Your task to perform on an android device: Where can I buy a nice beach cooler? Image 0: 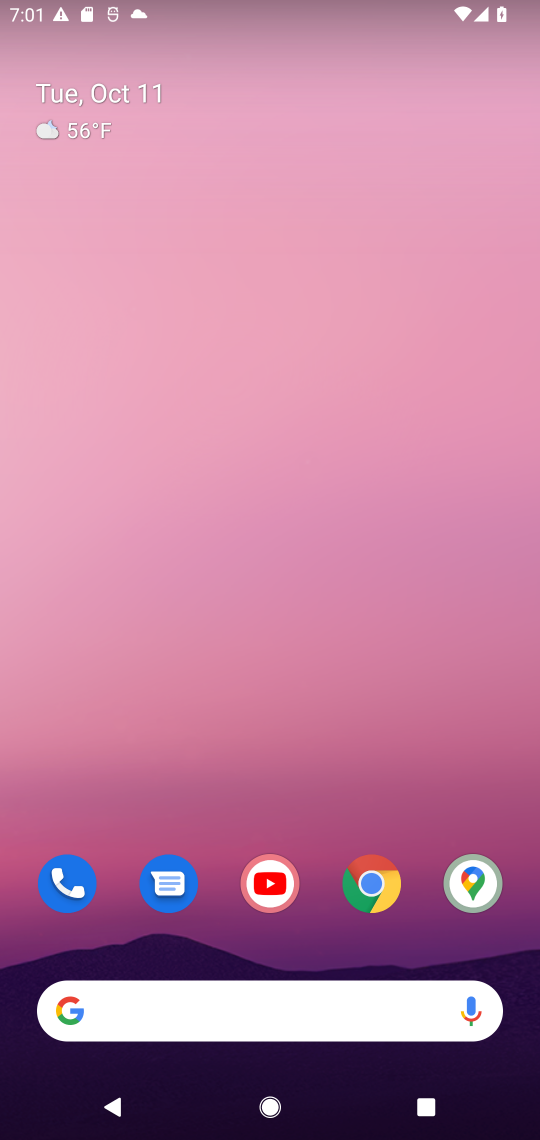
Step 0: drag from (320, 935) to (274, 108)
Your task to perform on an android device: Where can I buy a nice beach cooler? Image 1: 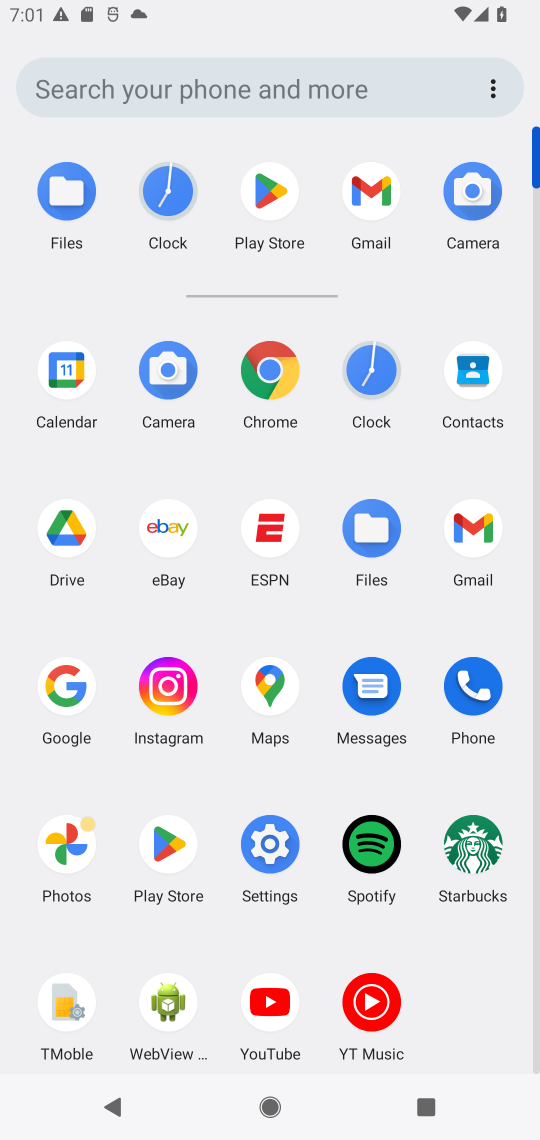
Step 1: click (279, 363)
Your task to perform on an android device: Where can I buy a nice beach cooler? Image 2: 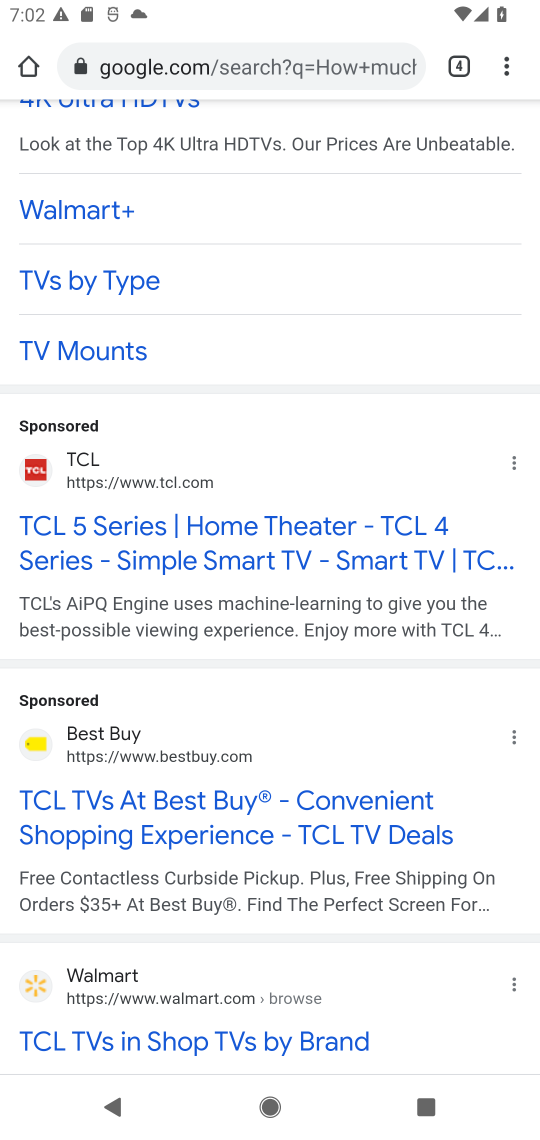
Step 2: click (316, 60)
Your task to perform on an android device: Where can I buy a nice beach cooler? Image 3: 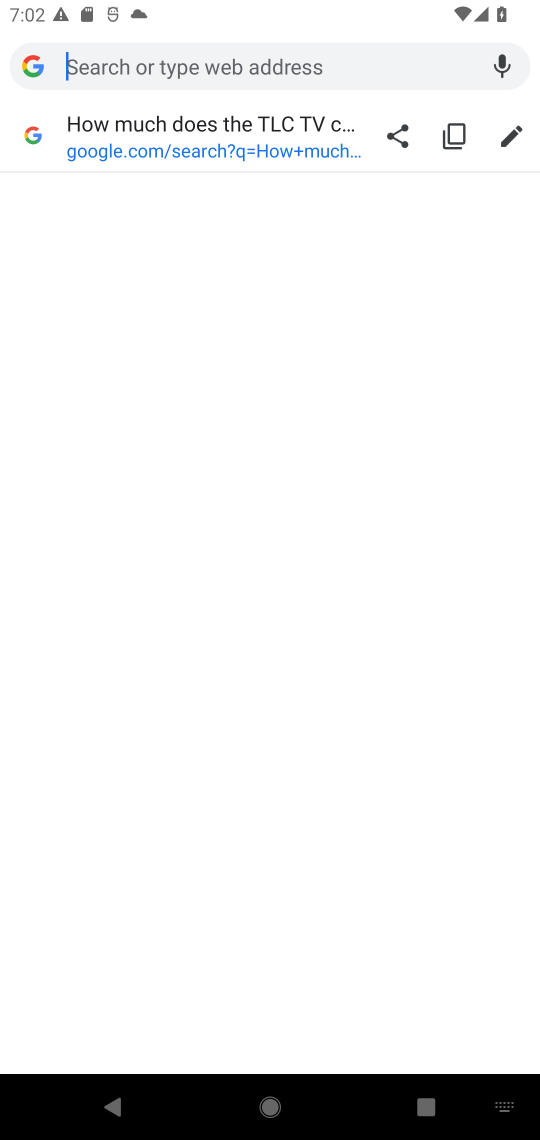
Step 3: type "Where can I buy a nice beach cooler?"
Your task to perform on an android device: Where can I buy a nice beach cooler? Image 4: 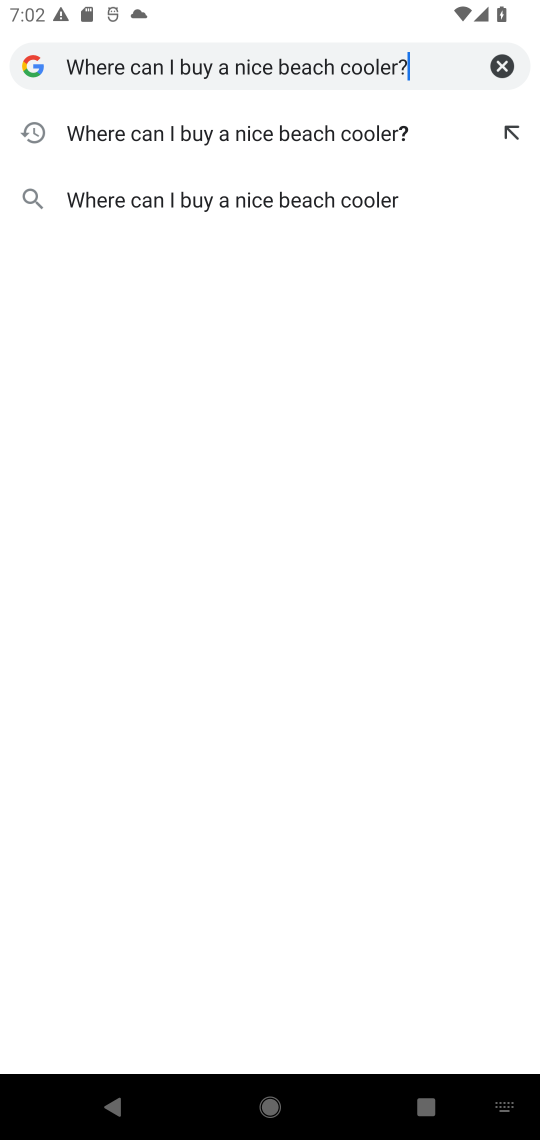
Step 4: press enter
Your task to perform on an android device: Where can I buy a nice beach cooler? Image 5: 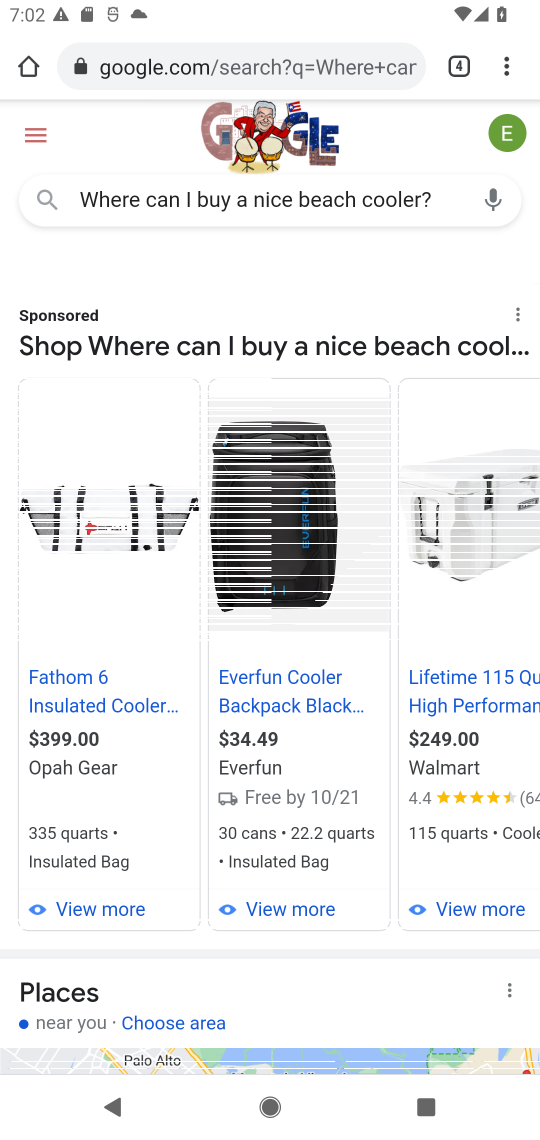
Step 5: task complete